Your task to perform on an android device: check the backup settings in the google photos Image 0: 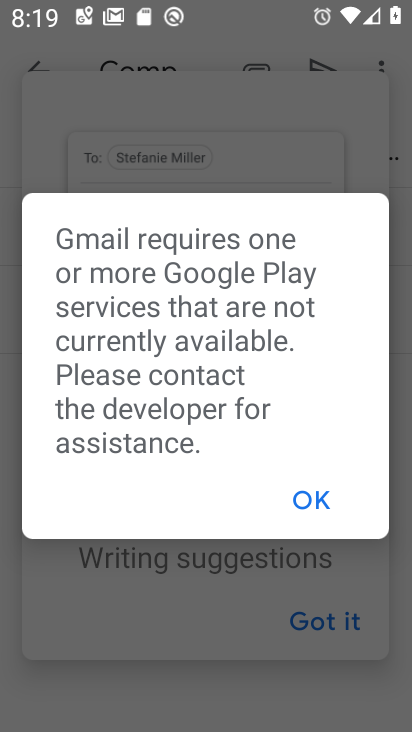
Step 0: press home button
Your task to perform on an android device: check the backup settings in the google photos Image 1: 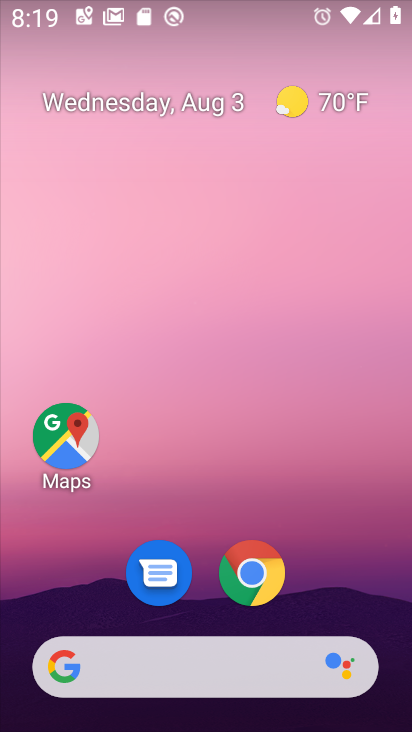
Step 1: drag from (382, 620) to (350, 9)
Your task to perform on an android device: check the backup settings in the google photos Image 2: 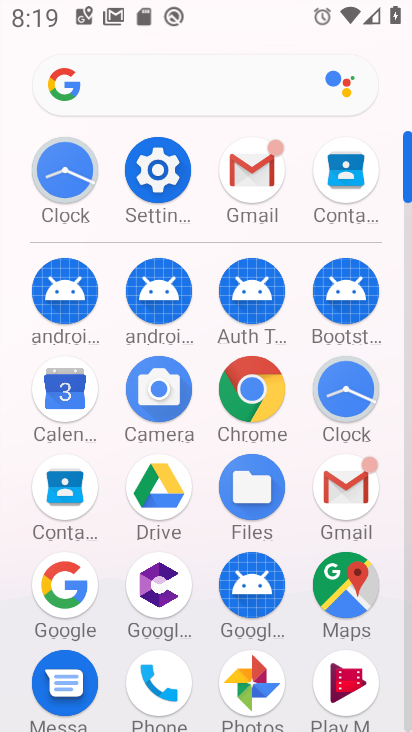
Step 2: click (246, 678)
Your task to perform on an android device: check the backup settings in the google photos Image 3: 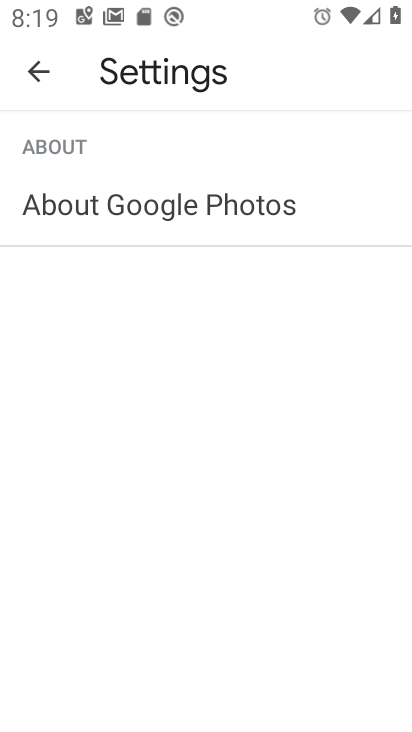
Step 3: click (35, 69)
Your task to perform on an android device: check the backup settings in the google photos Image 4: 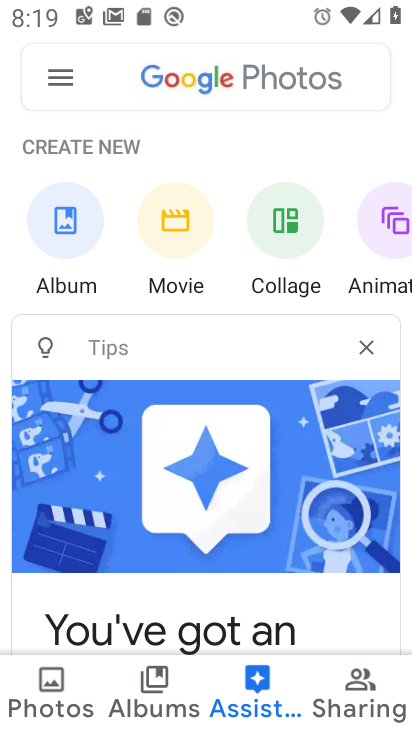
Step 4: click (53, 75)
Your task to perform on an android device: check the backup settings in the google photos Image 5: 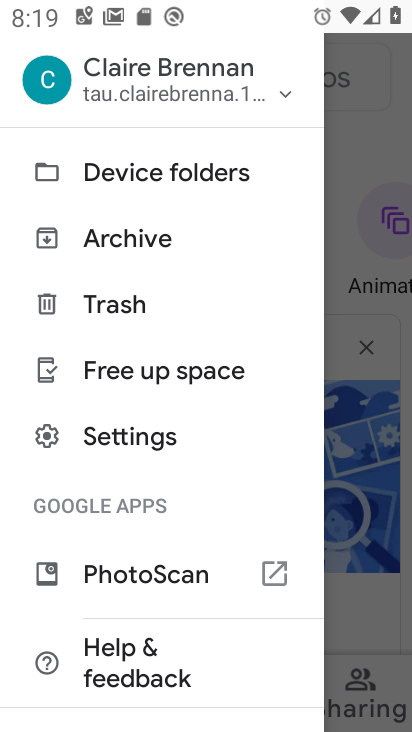
Step 5: click (114, 434)
Your task to perform on an android device: check the backup settings in the google photos Image 6: 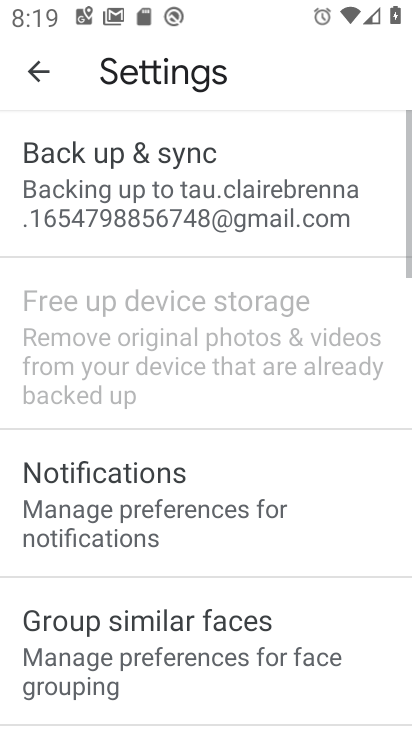
Step 6: click (132, 176)
Your task to perform on an android device: check the backup settings in the google photos Image 7: 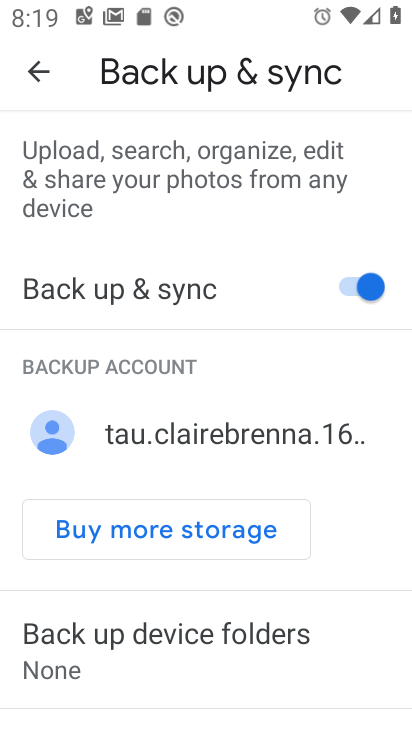
Step 7: task complete